Your task to perform on an android device: set an alarm Image 0: 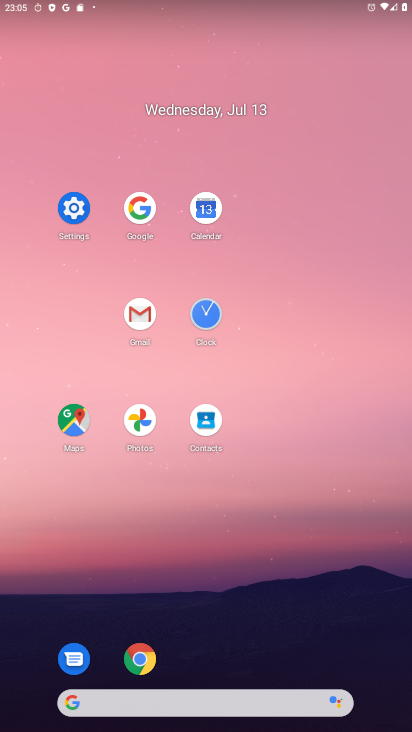
Step 0: click (208, 302)
Your task to perform on an android device: set an alarm Image 1: 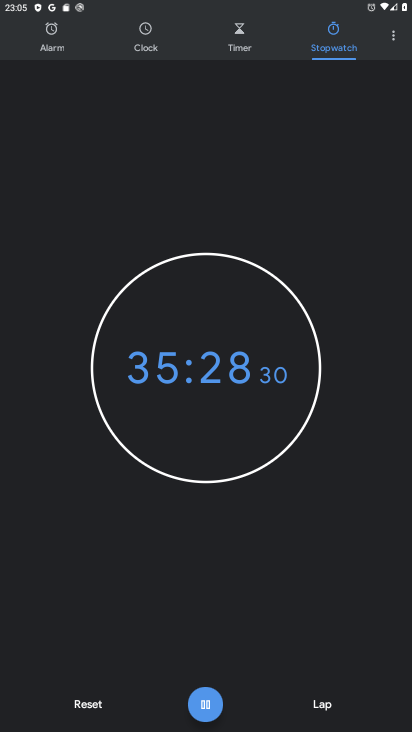
Step 1: click (52, 27)
Your task to perform on an android device: set an alarm Image 2: 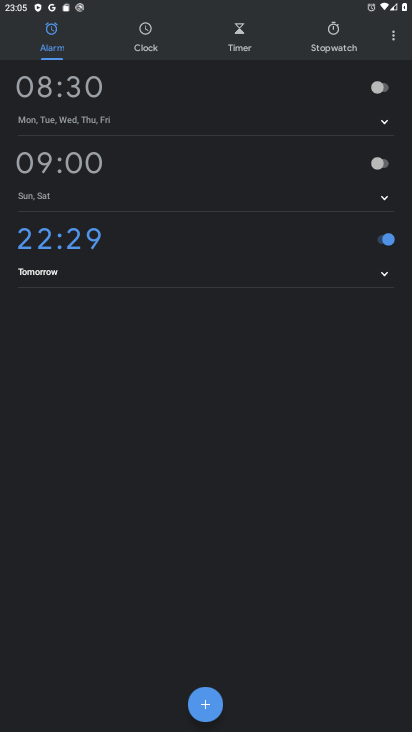
Step 2: click (384, 94)
Your task to perform on an android device: set an alarm Image 3: 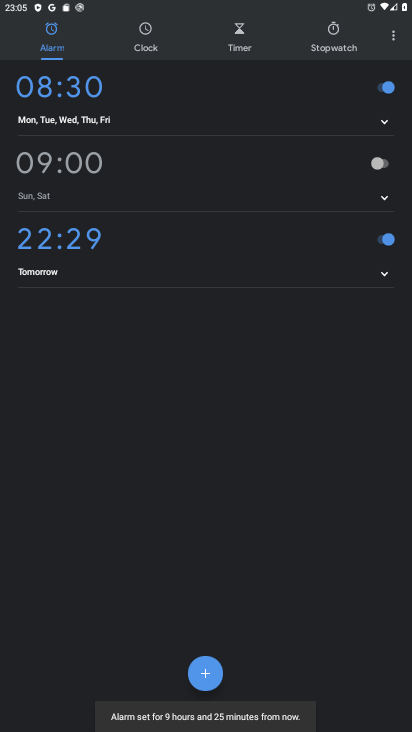
Step 3: task complete